Your task to perform on an android device: Show the shopping cart on newegg. Search for "razer kraken" on newegg, select the first entry, and add it to the cart. Image 0: 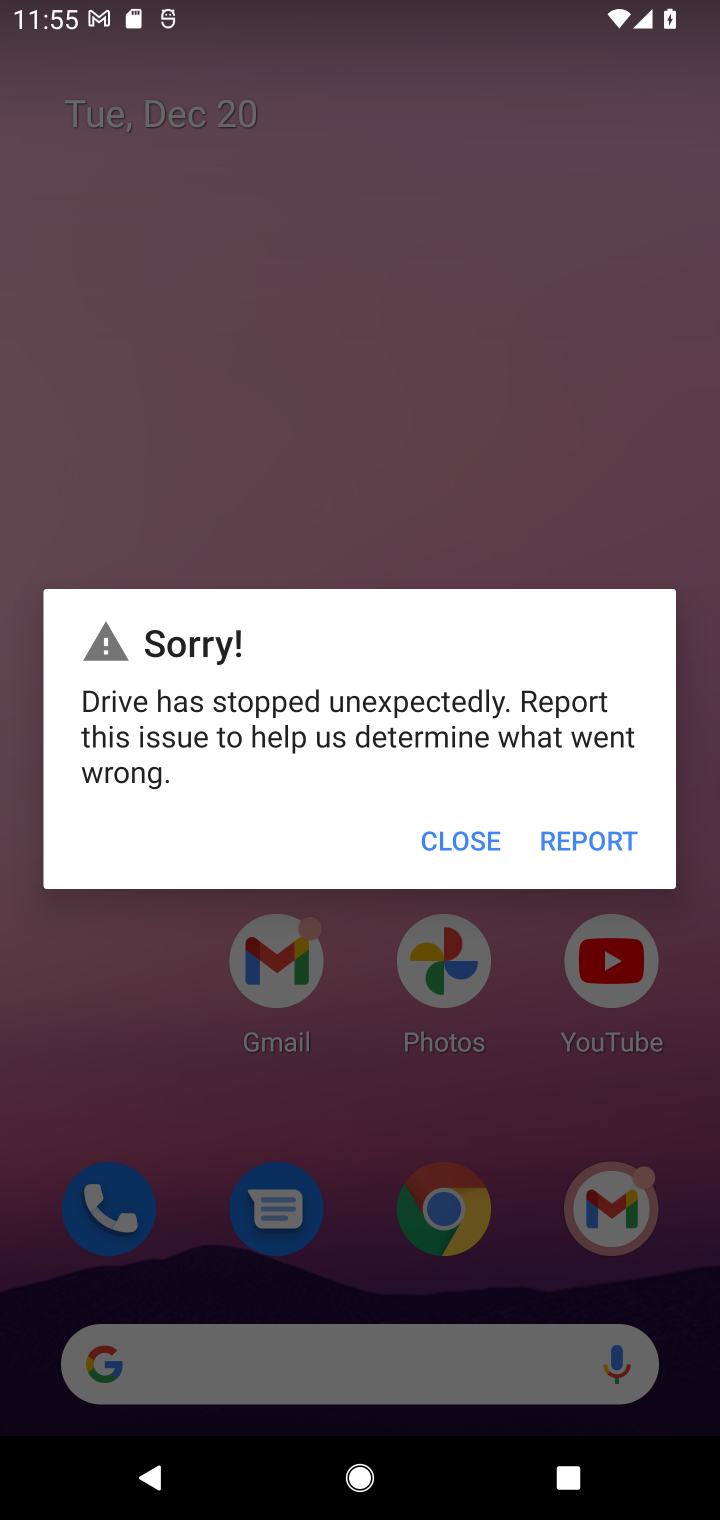
Step 0: press home button
Your task to perform on an android device: Show the shopping cart on newegg. Search for "razer kraken" on newegg, select the first entry, and add it to the cart. Image 1: 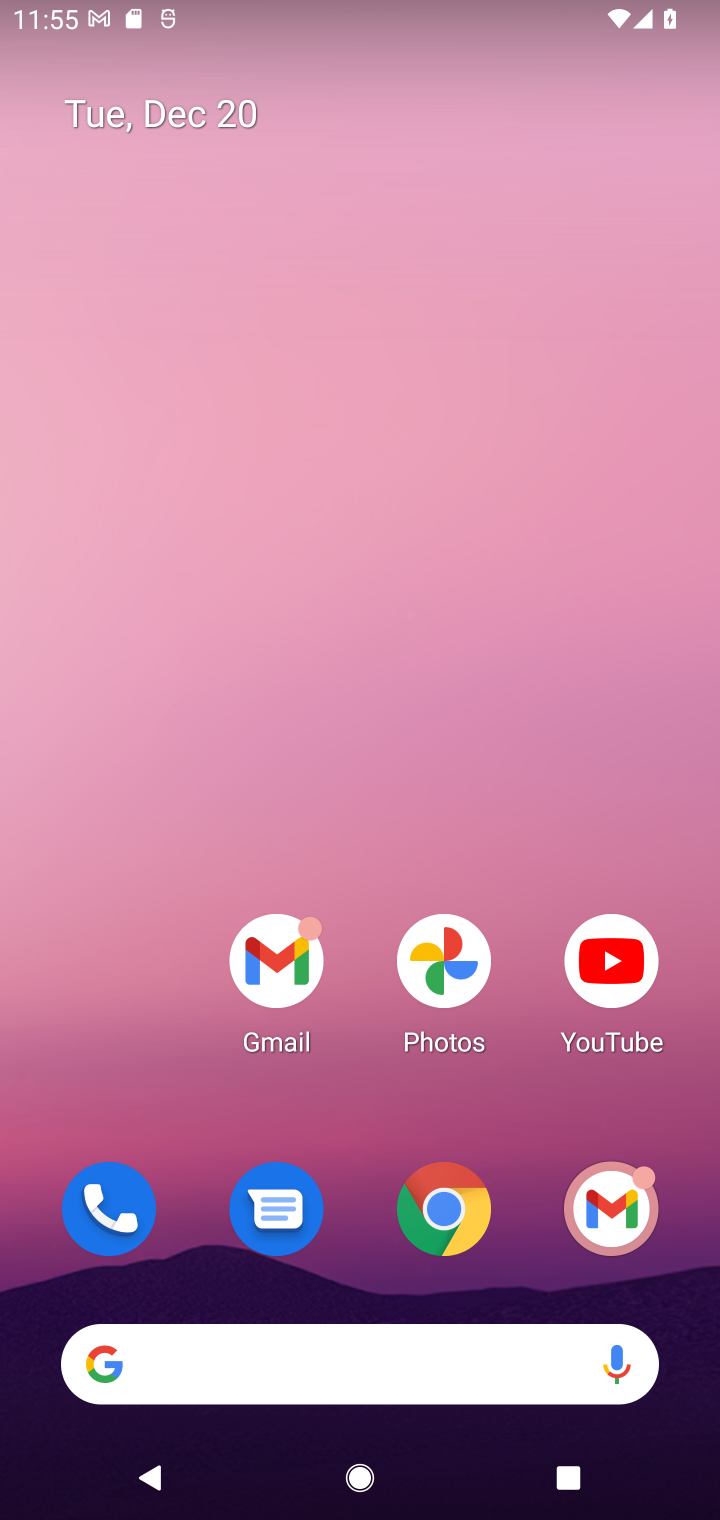
Step 1: click (435, 1214)
Your task to perform on an android device: Show the shopping cart on newegg. Search for "razer kraken" on newegg, select the first entry, and add it to the cart. Image 2: 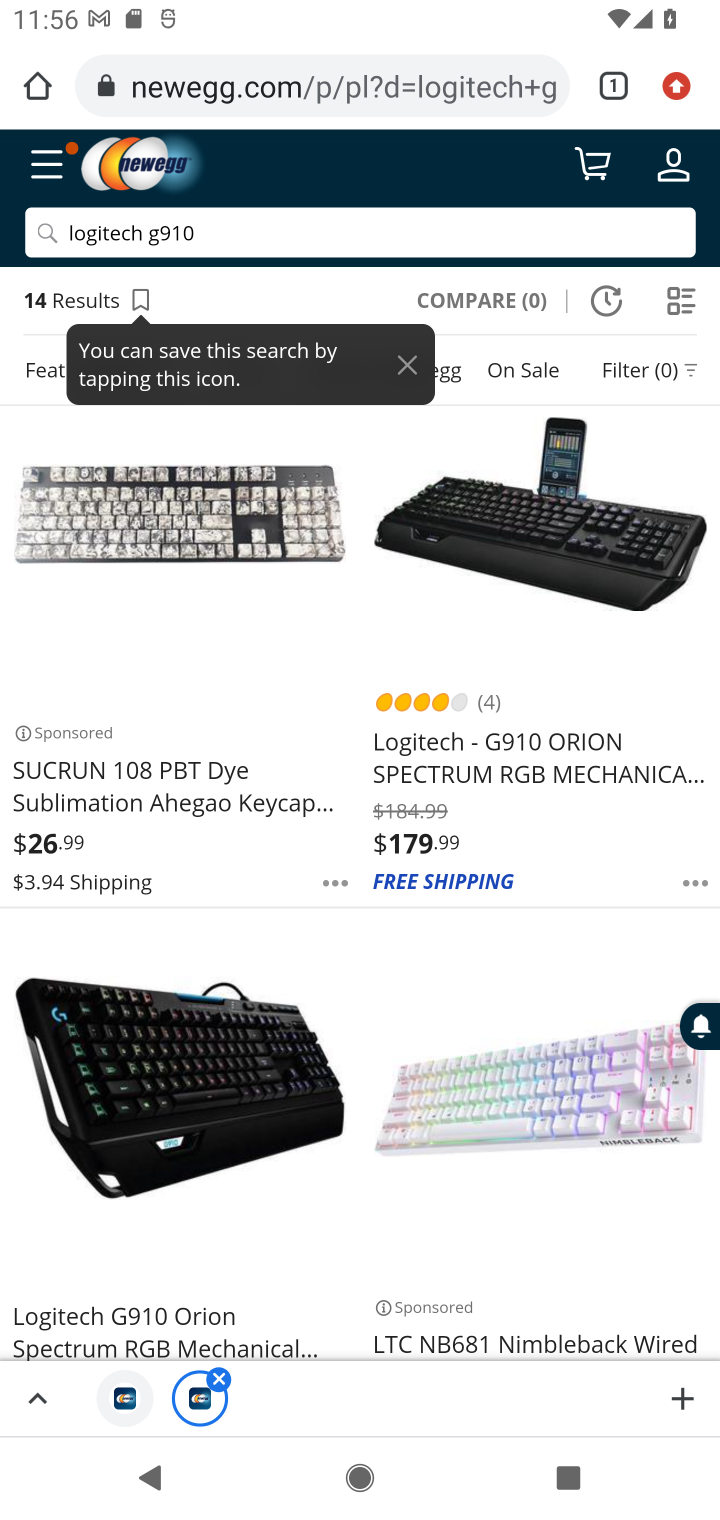
Step 2: click (597, 174)
Your task to perform on an android device: Show the shopping cart on newegg. Search for "razer kraken" on newegg, select the first entry, and add it to the cart. Image 3: 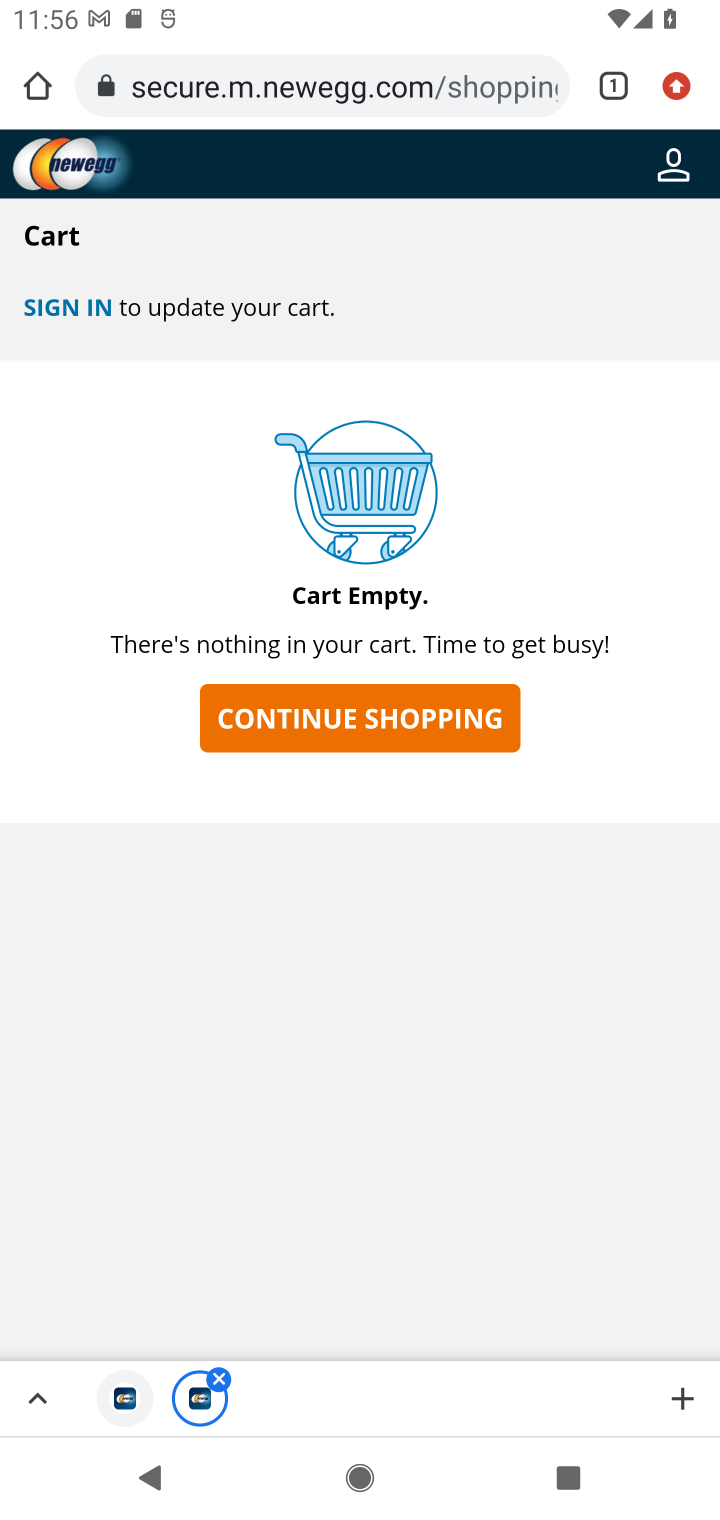
Step 3: click (331, 720)
Your task to perform on an android device: Show the shopping cart on newegg. Search for "razer kraken" on newegg, select the first entry, and add it to the cart. Image 4: 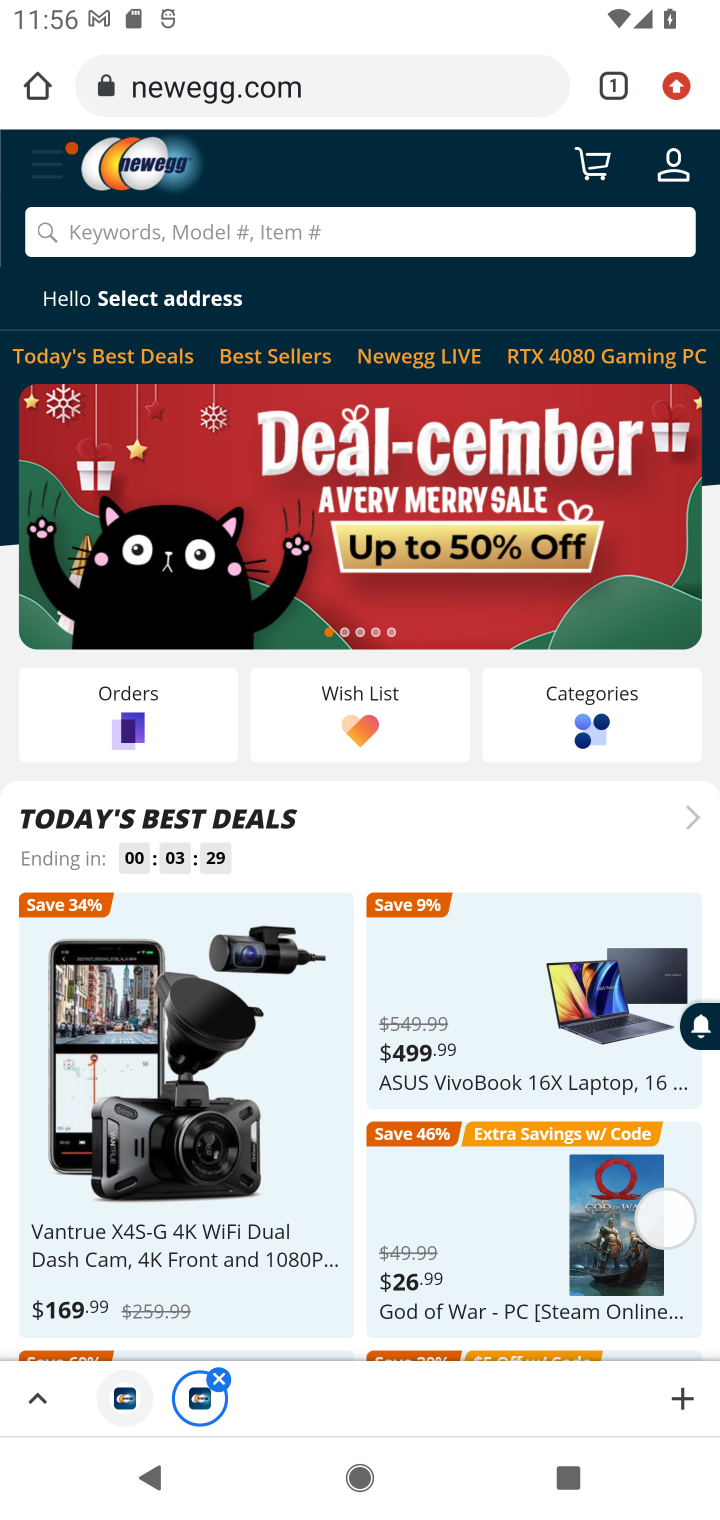
Step 4: click (116, 243)
Your task to perform on an android device: Show the shopping cart on newegg. Search for "razer kraken" on newegg, select the first entry, and add it to the cart. Image 5: 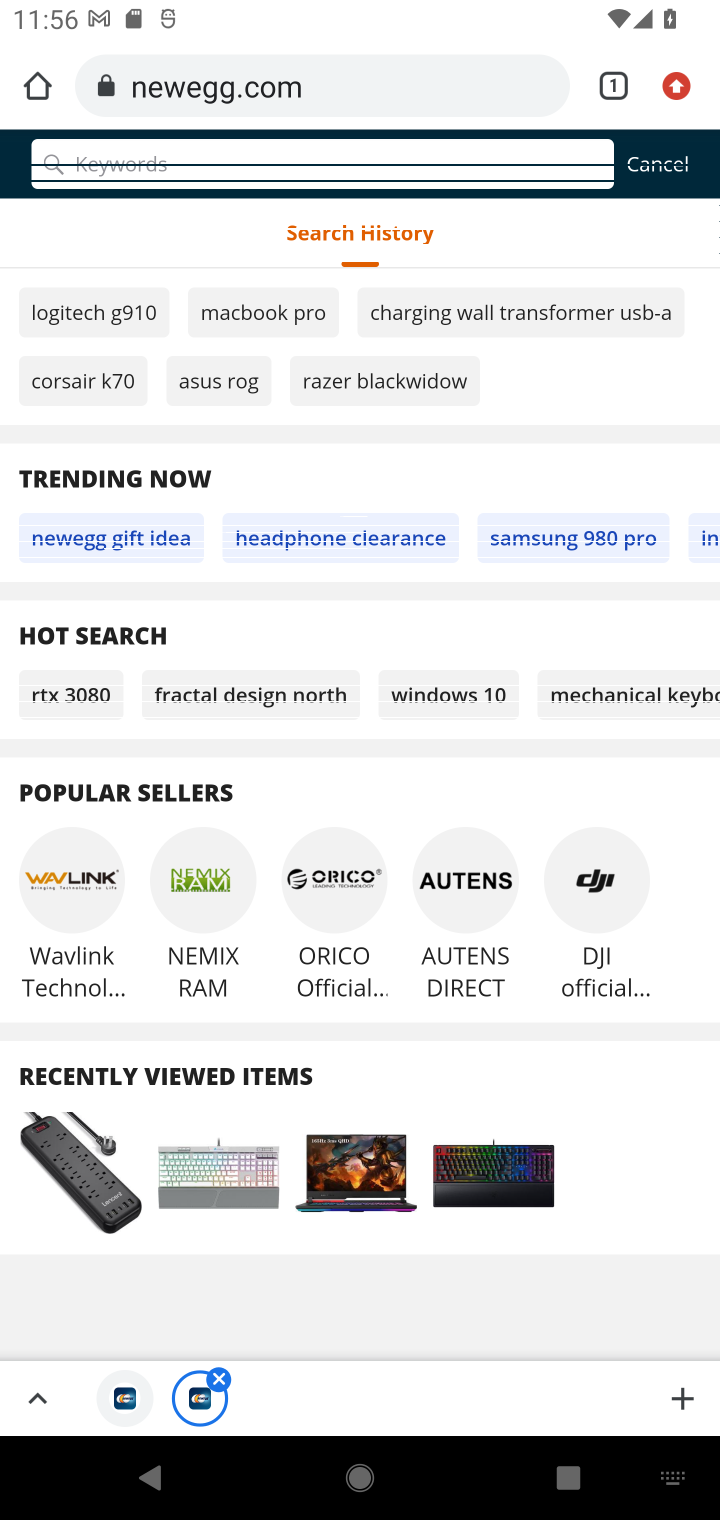
Step 5: type "razer kraken"
Your task to perform on an android device: Show the shopping cart on newegg. Search for "razer kraken" on newegg, select the first entry, and add it to the cart. Image 6: 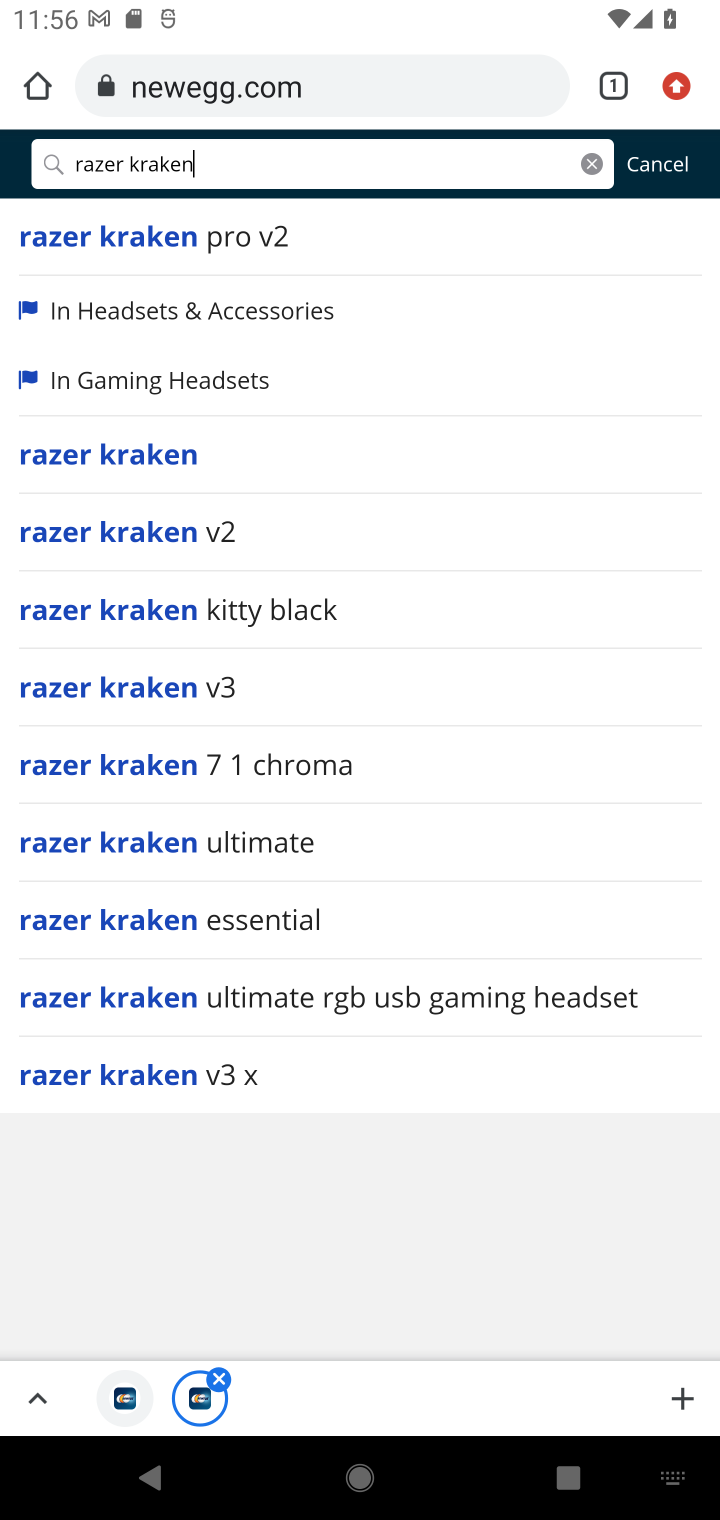
Step 6: click (88, 467)
Your task to perform on an android device: Show the shopping cart on newegg. Search for "razer kraken" on newegg, select the first entry, and add it to the cart. Image 7: 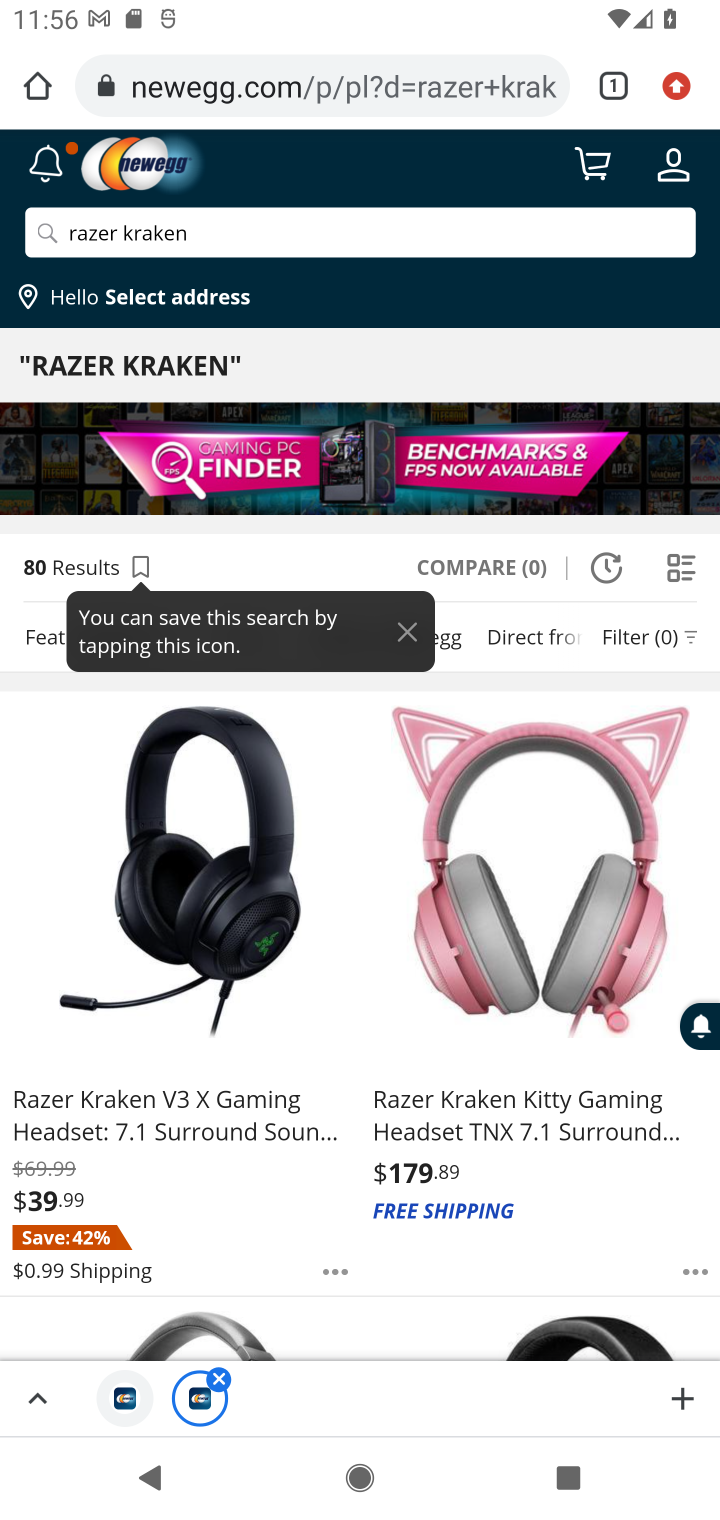
Step 7: click (108, 1110)
Your task to perform on an android device: Show the shopping cart on newegg. Search for "razer kraken" on newegg, select the first entry, and add it to the cart. Image 8: 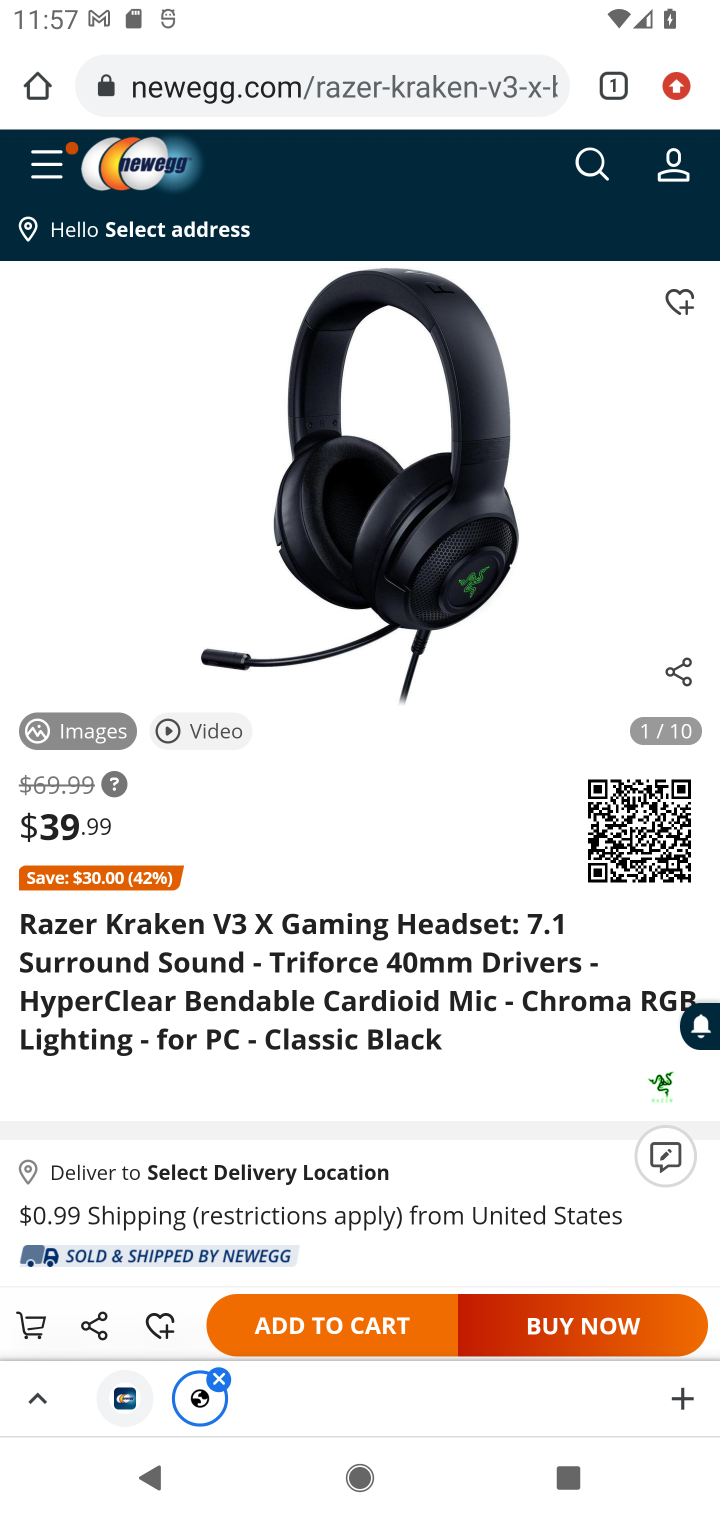
Step 8: click (329, 1321)
Your task to perform on an android device: Show the shopping cart on newegg. Search for "razer kraken" on newegg, select the first entry, and add it to the cart. Image 9: 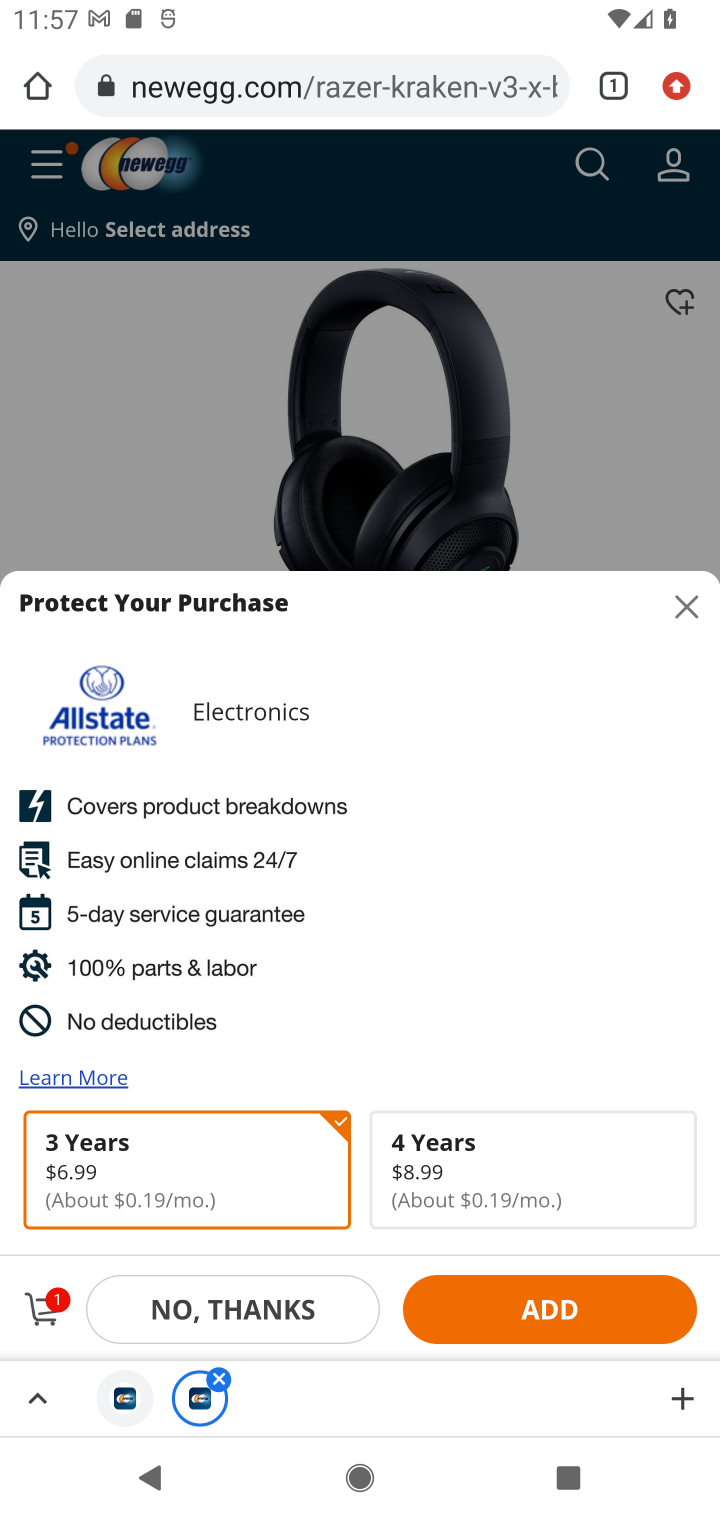
Step 9: task complete